Your task to perform on an android device: find which apps use the phone's location Image 0: 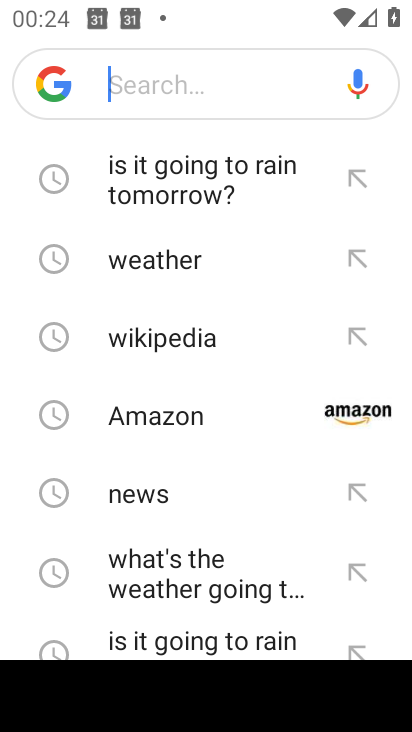
Step 0: press home button
Your task to perform on an android device: find which apps use the phone's location Image 1: 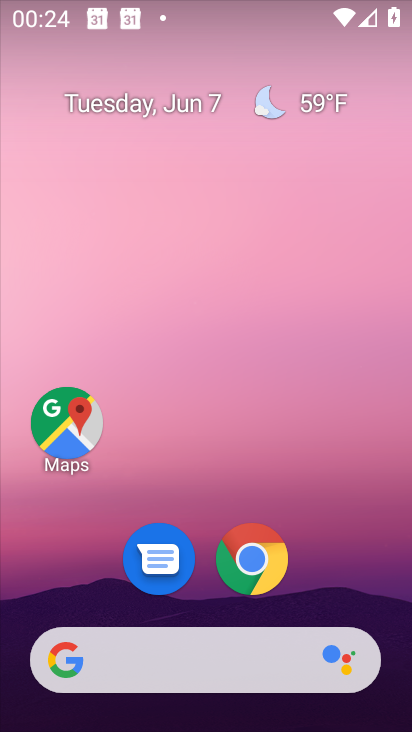
Step 1: drag from (319, 603) to (333, 4)
Your task to perform on an android device: find which apps use the phone's location Image 2: 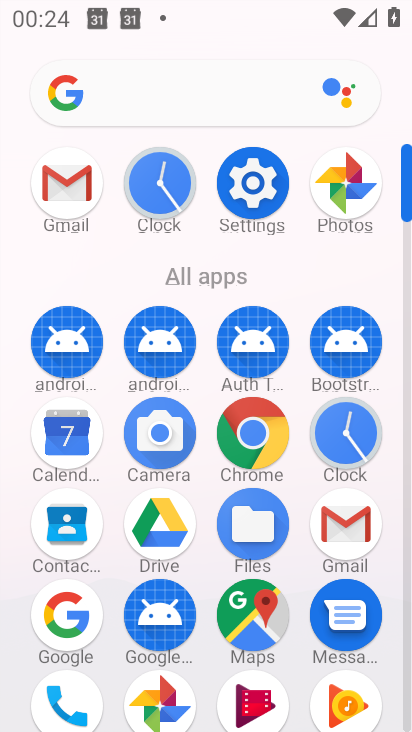
Step 2: click (252, 187)
Your task to perform on an android device: find which apps use the phone's location Image 3: 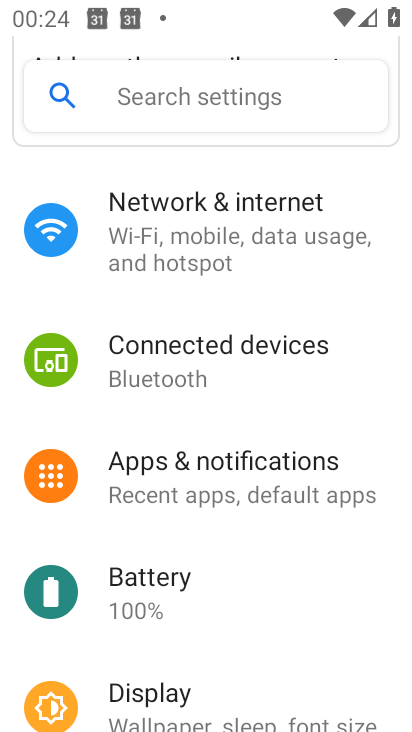
Step 3: drag from (206, 671) to (212, 88)
Your task to perform on an android device: find which apps use the phone's location Image 4: 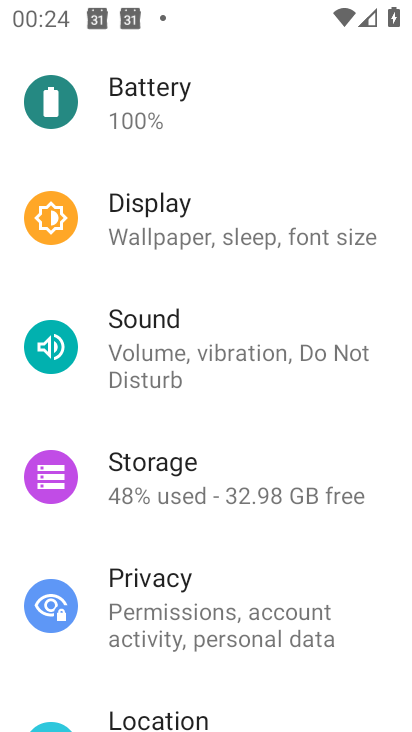
Step 4: drag from (222, 621) to (226, 218)
Your task to perform on an android device: find which apps use the phone's location Image 5: 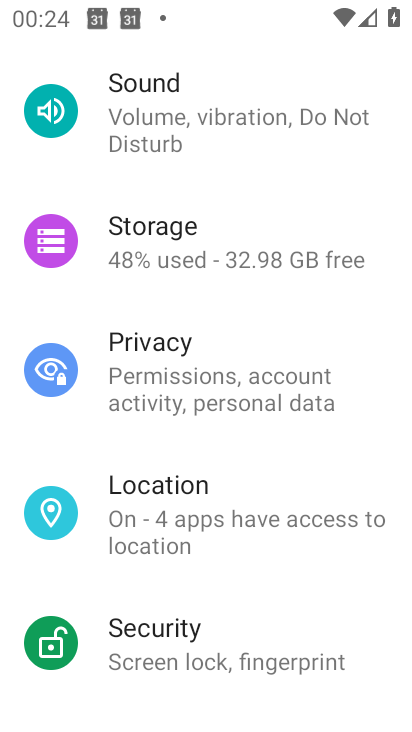
Step 5: click (224, 495)
Your task to perform on an android device: find which apps use the phone's location Image 6: 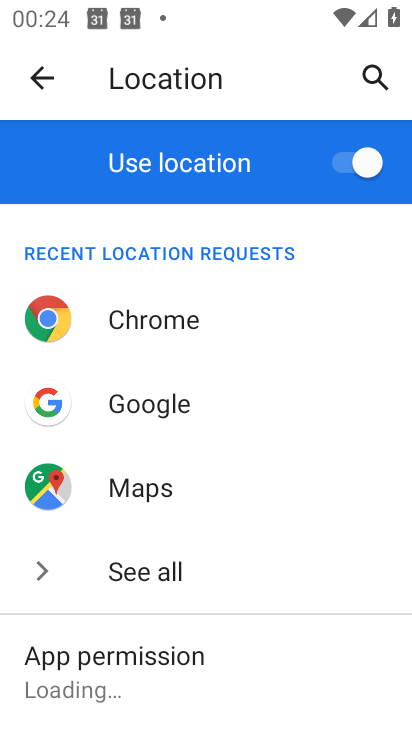
Step 6: drag from (206, 648) to (217, 105)
Your task to perform on an android device: find which apps use the phone's location Image 7: 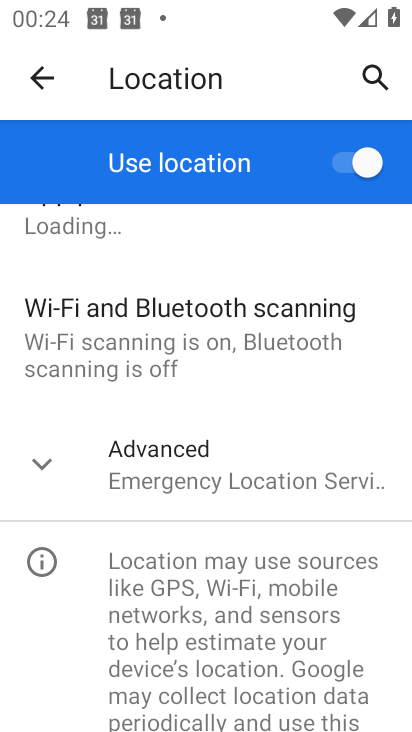
Step 7: drag from (228, 618) to (236, 340)
Your task to perform on an android device: find which apps use the phone's location Image 8: 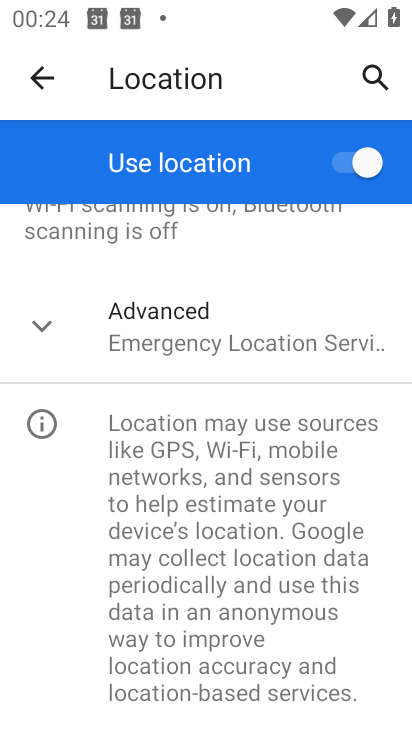
Step 8: drag from (239, 354) to (254, 682)
Your task to perform on an android device: find which apps use the phone's location Image 9: 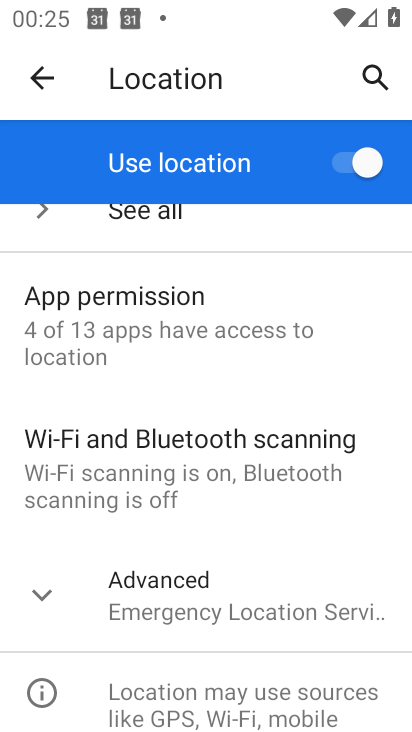
Step 9: drag from (234, 329) to (254, 502)
Your task to perform on an android device: find which apps use the phone's location Image 10: 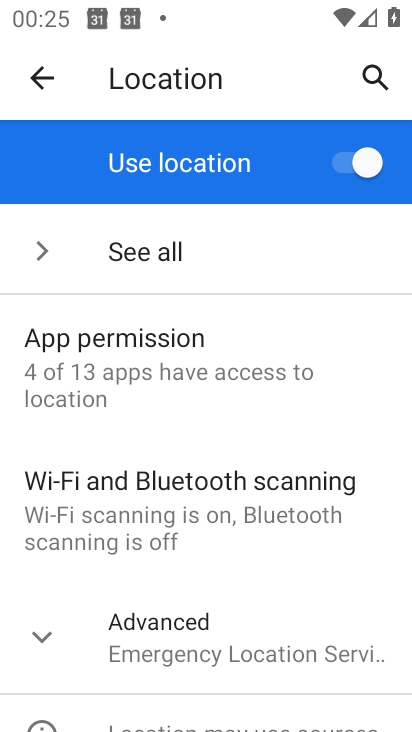
Step 10: click (121, 374)
Your task to perform on an android device: find which apps use the phone's location Image 11: 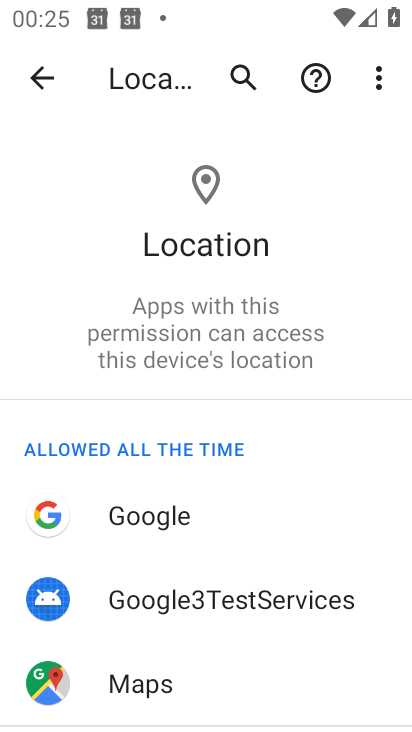
Step 11: task complete